Your task to perform on an android device: add a label to a message in the gmail app Image 0: 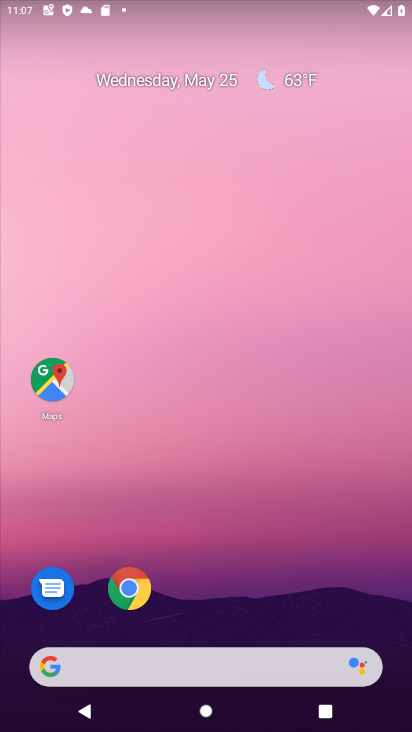
Step 0: drag from (276, 613) to (278, 50)
Your task to perform on an android device: add a label to a message in the gmail app Image 1: 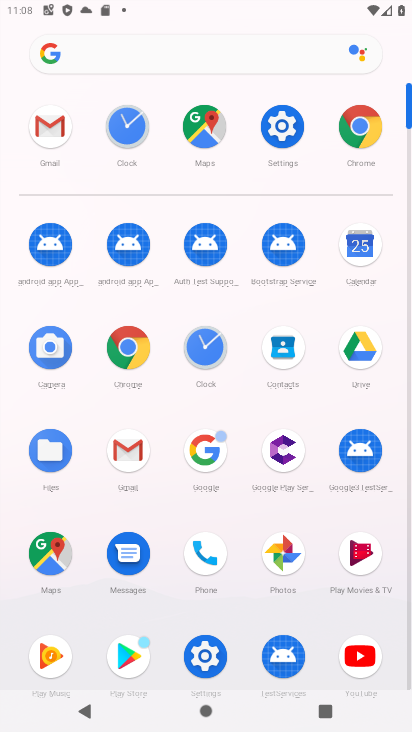
Step 1: click (115, 439)
Your task to perform on an android device: add a label to a message in the gmail app Image 2: 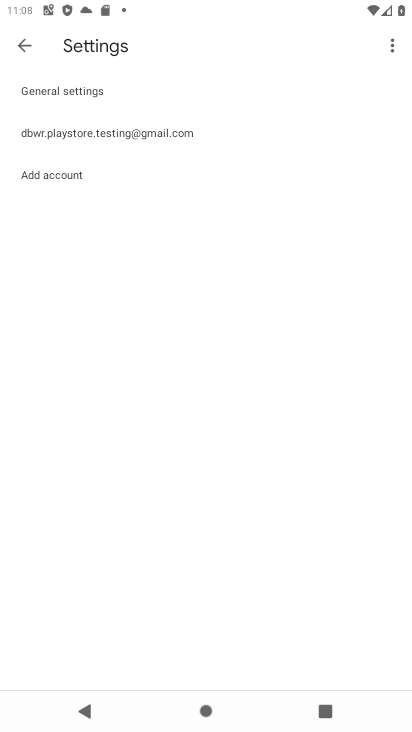
Step 2: click (27, 43)
Your task to perform on an android device: add a label to a message in the gmail app Image 3: 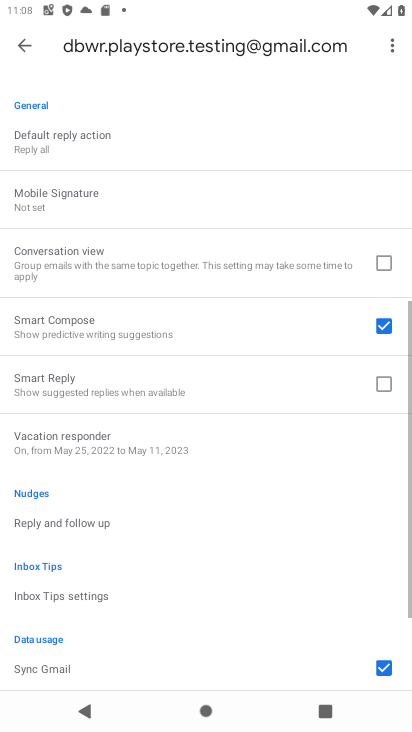
Step 3: click (26, 43)
Your task to perform on an android device: add a label to a message in the gmail app Image 4: 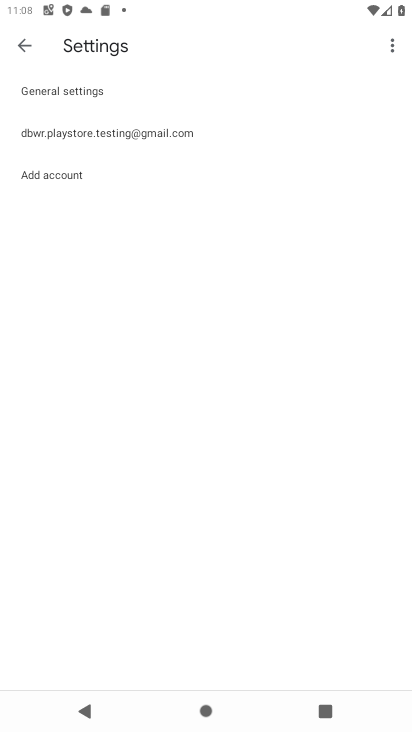
Step 4: click (26, 43)
Your task to perform on an android device: add a label to a message in the gmail app Image 5: 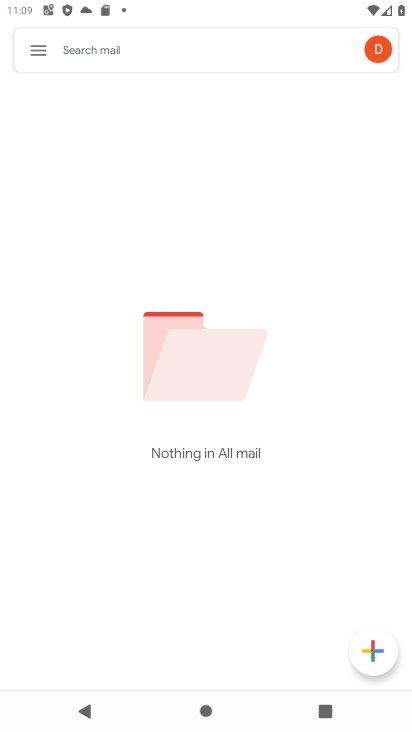
Step 5: task complete